Your task to perform on an android device: turn on bluetooth scan Image 0: 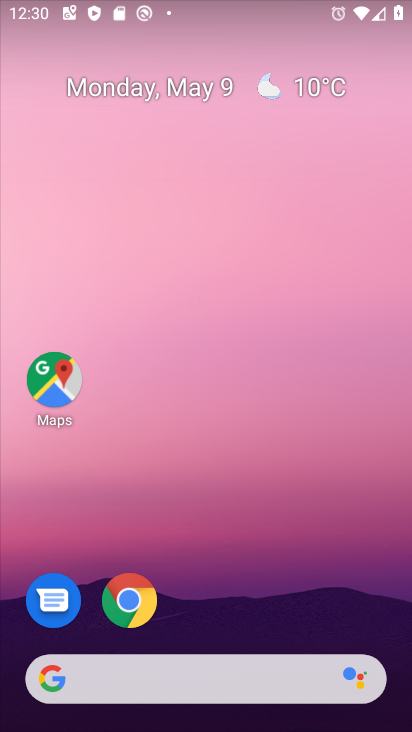
Step 0: drag from (220, 620) to (239, 257)
Your task to perform on an android device: turn on bluetooth scan Image 1: 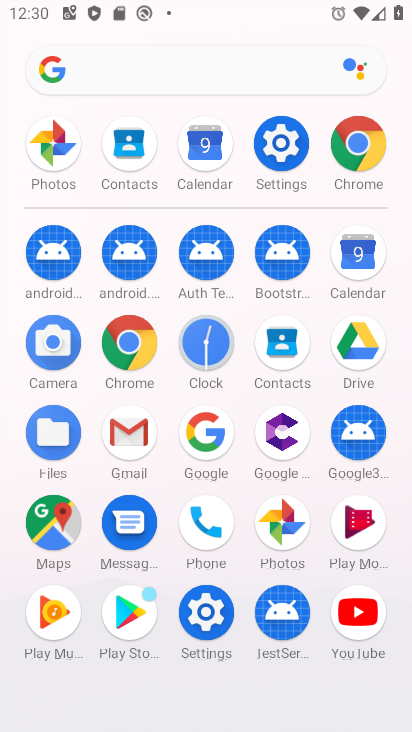
Step 1: click (276, 139)
Your task to perform on an android device: turn on bluetooth scan Image 2: 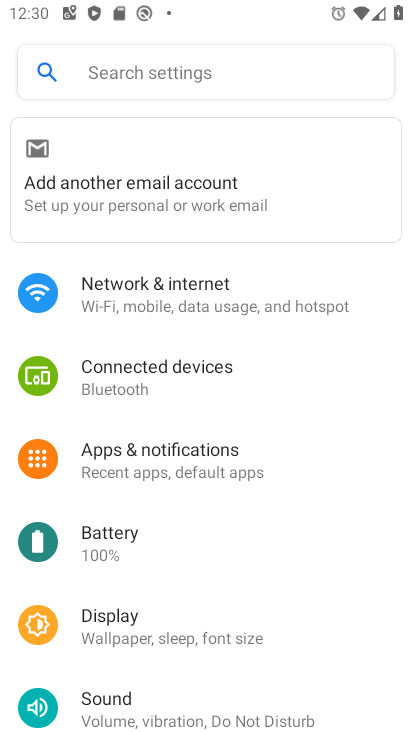
Step 2: drag from (160, 584) to (251, 197)
Your task to perform on an android device: turn on bluetooth scan Image 3: 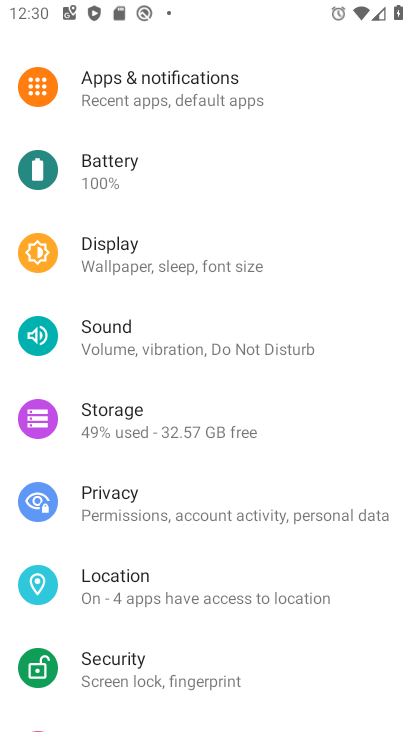
Step 3: click (154, 594)
Your task to perform on an android device: turn on bluetooth scan Image 4: 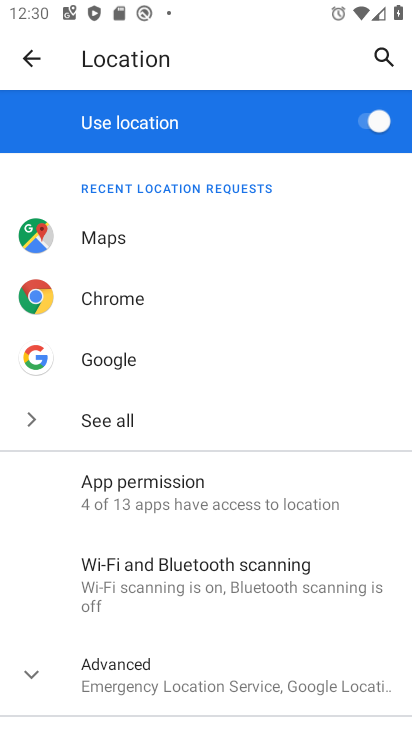
Step 4: click (215, 572)
Your task to perform on an android device: turn on bluetooth scan Image 5: 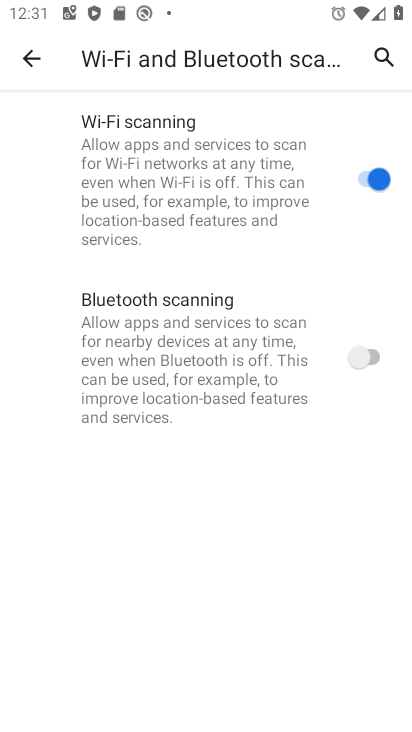
Step 5: click (358, 361)
Your task to perform on an android device: turn on bluetooth scan Image 6: 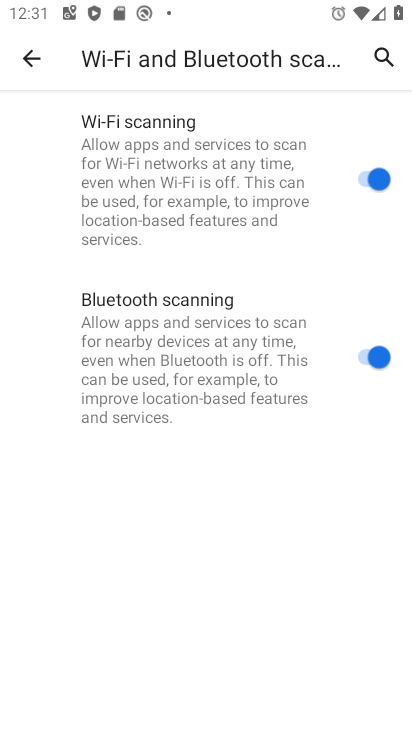
Step 6: task complete